Your task to perform on an android device: Search for Mexican restaurants on Maps Image 0: 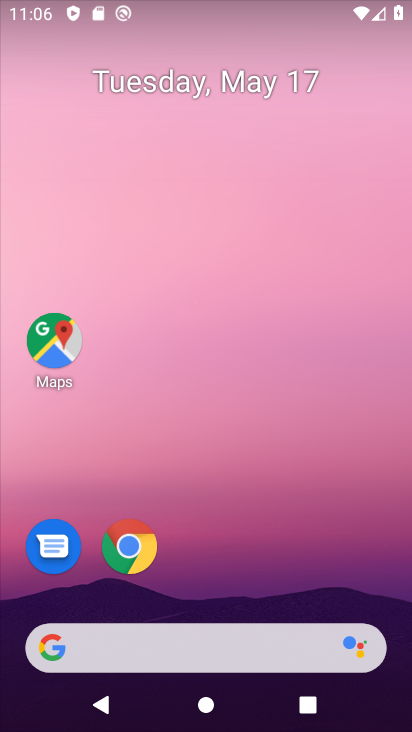
Step 0: click (44, 325)
Your task to perform on an android device: Search for Mexican restaurants on Maps Image 1: 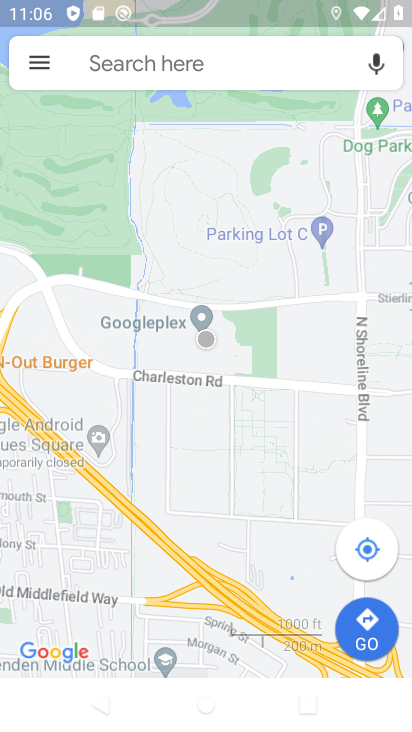
Step 1: click (171, 65)
Your task to perform on an android device: Search for Mexican restaurants on Maps Image 2: 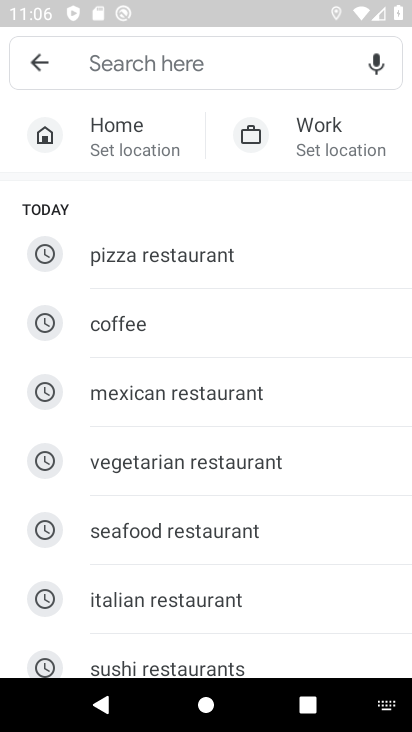
Step 2: click (203, 409)
Your task to perform on an android device: Search for Mexican restaurants on Maps Image 3: 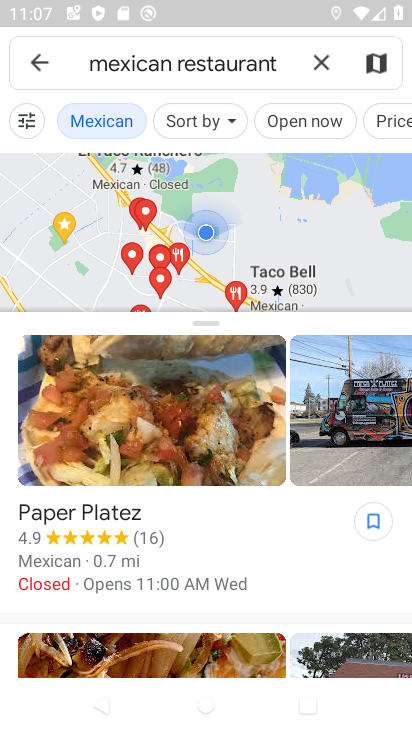
Step 3: task complete